Your task to perform on an android device: change notification settings in the gmail app Image 0: 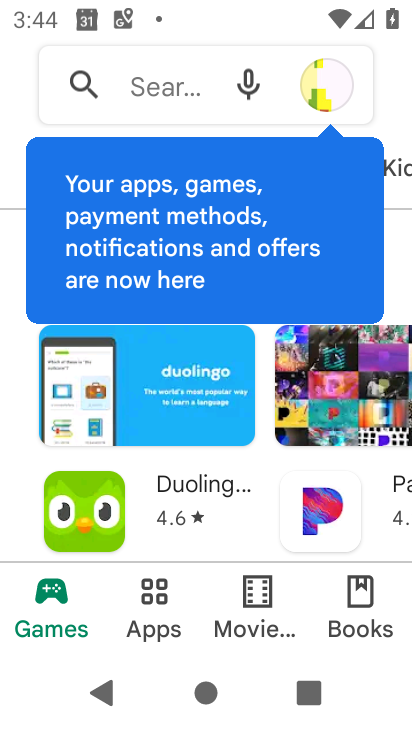
Step 0: press home button
Your task to perform on an android device: change notification settings in the gmail app Image 1: 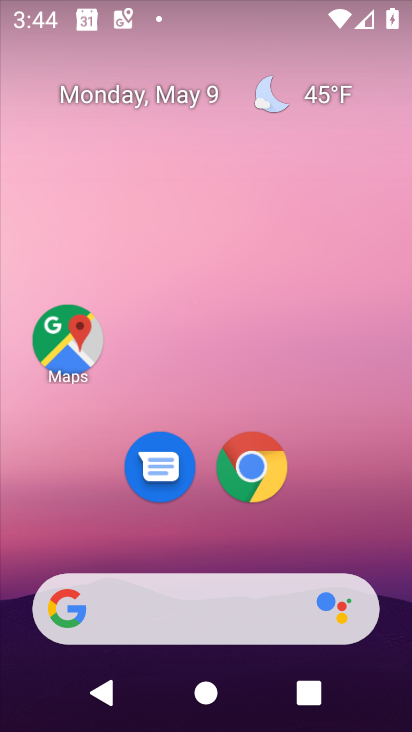
Step 1: drag from (304, 547) to (358, 191)
Your task to perform on an android device: change notification settings in the gmail app Image 2: 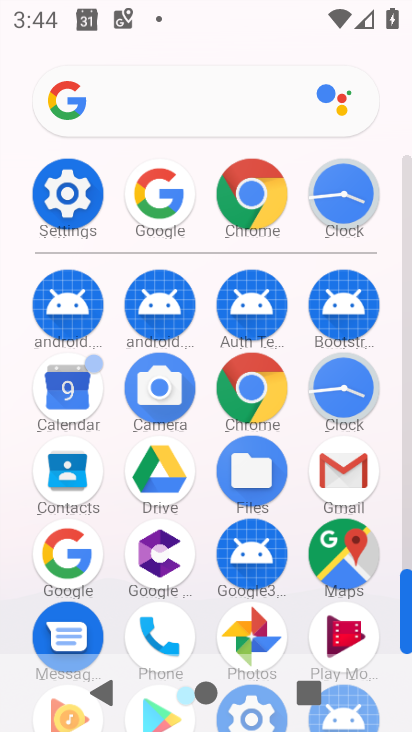
Step 2: click (334, 490)
Your task to perform on an android device: change notification settings in the gmail app Image 3: 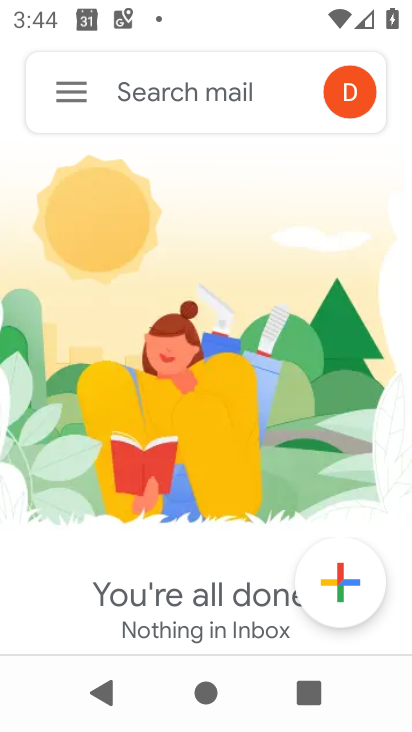
Step 3: click (62, 86)
Your task to perform on an android device: change notification settings in the gmail app Image 4: 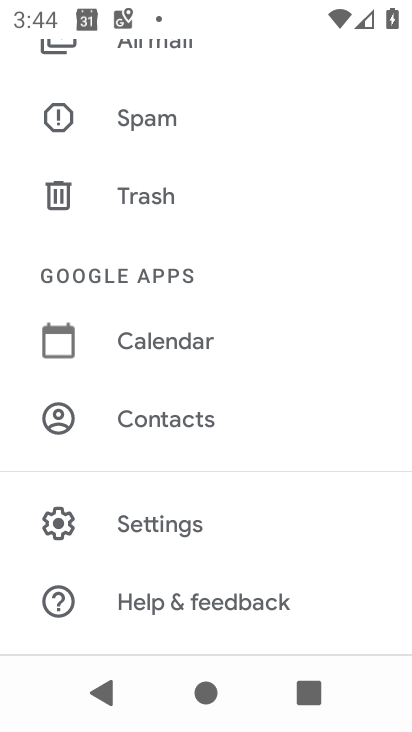
Step 4: click (173, 529)
Your task to perform on an android device: change notification settings in the gmail app Image 5: 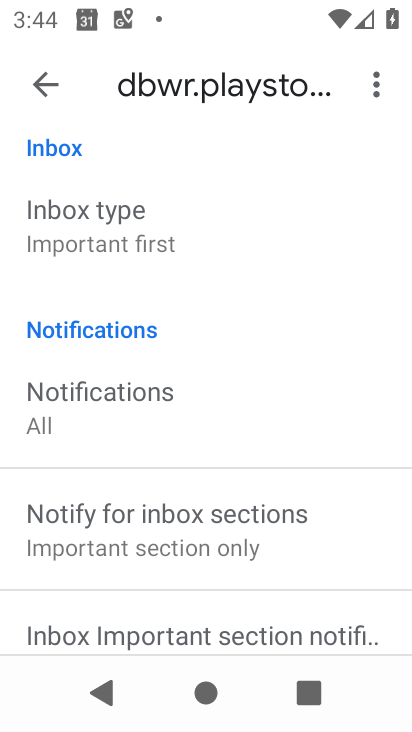
Step 5: click (199, 412)
Your task to perform on an android device: change notification settings in the gmail app Image 6: 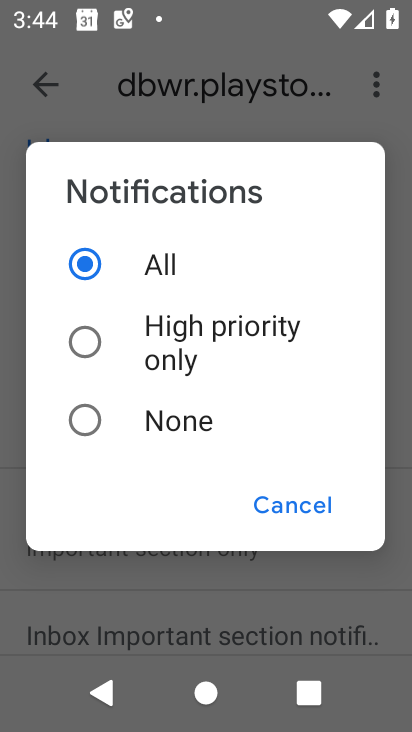
Step 6: click (247, 325)
Your task to perform on an android device: change notification settings in the gmail app Image 7: 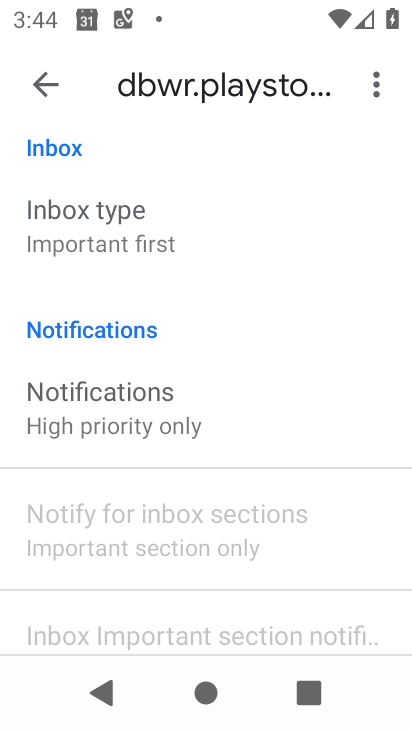
Step 7: task complete